Your task to perform on an android device: install app "Booking.com: Hotels and more" Image 0: 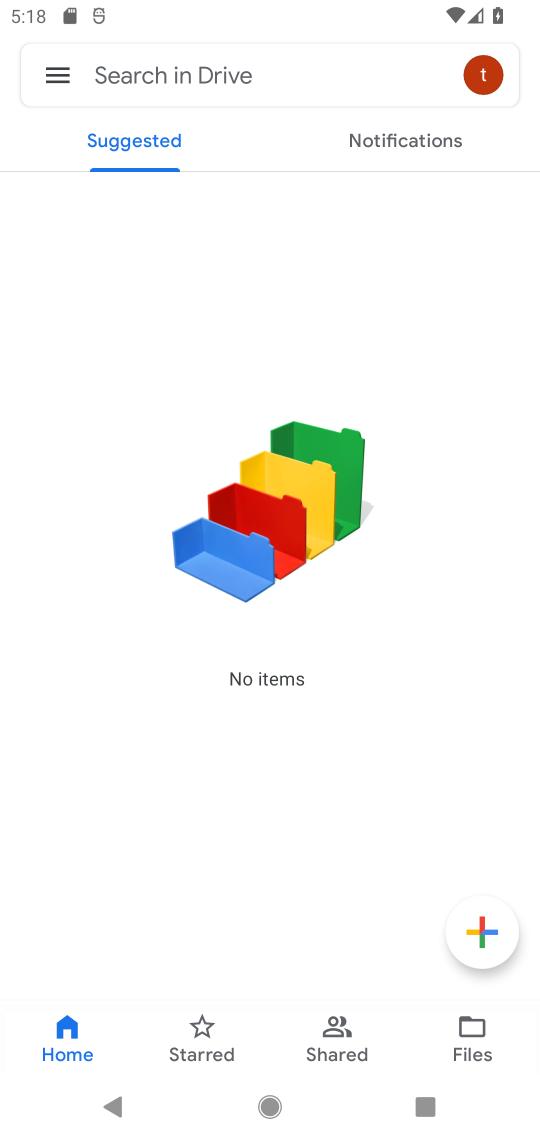
Step 0: press home button
Your task to perform on an android device: install app "Booking.com: Hotels and more" Image 1: 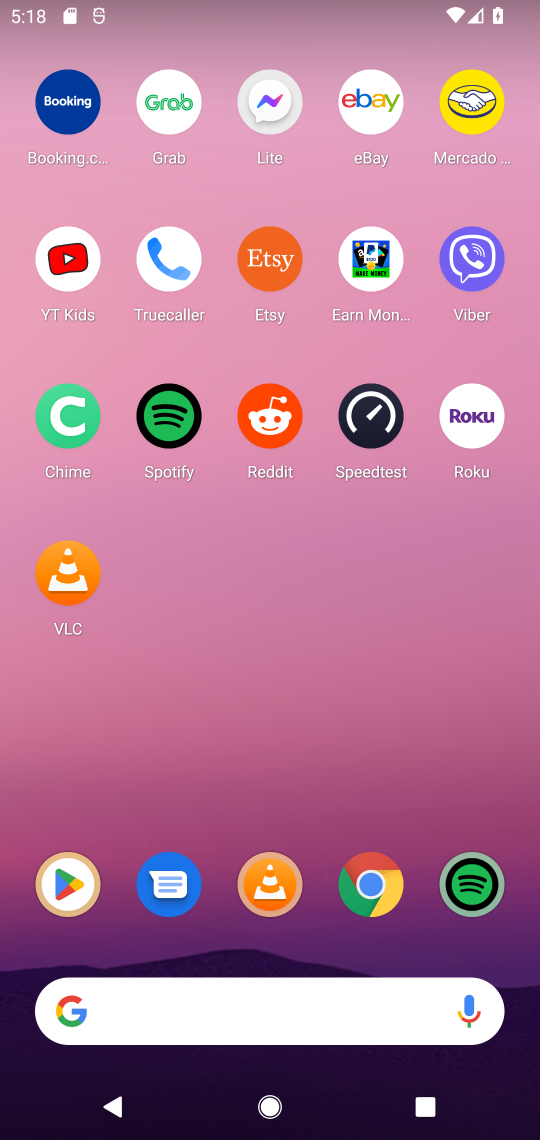
Step 1: drag from (339, 773) to (344, 113)
Your task to perform on an android device: install app "Booking.com: Hotels and more" Image 2: 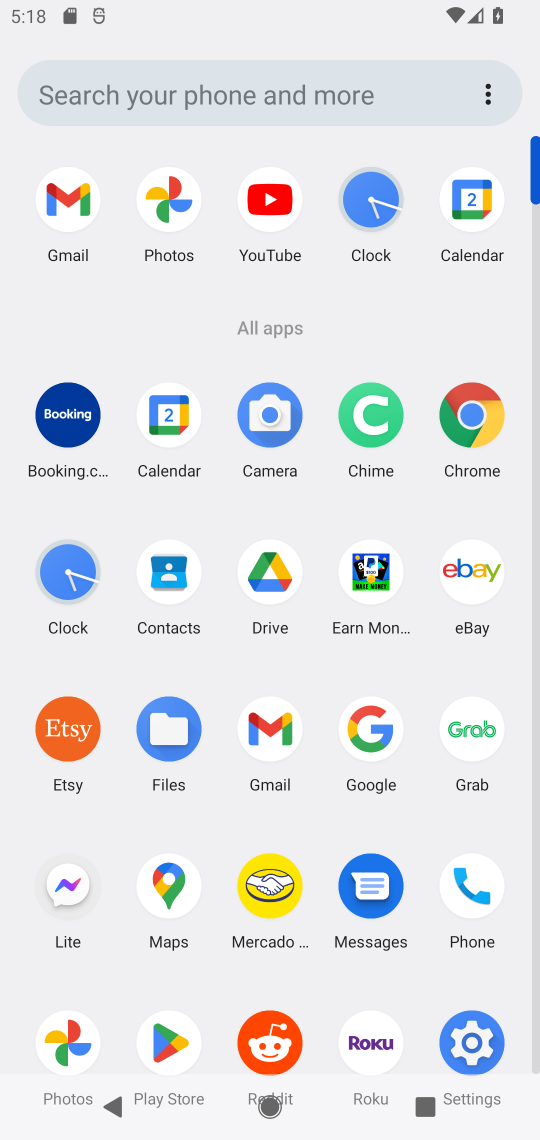
Step 2: click (158, 1045)
Your task to perform on an android device: install app "Booking.com: Hotels and more" Image 3: 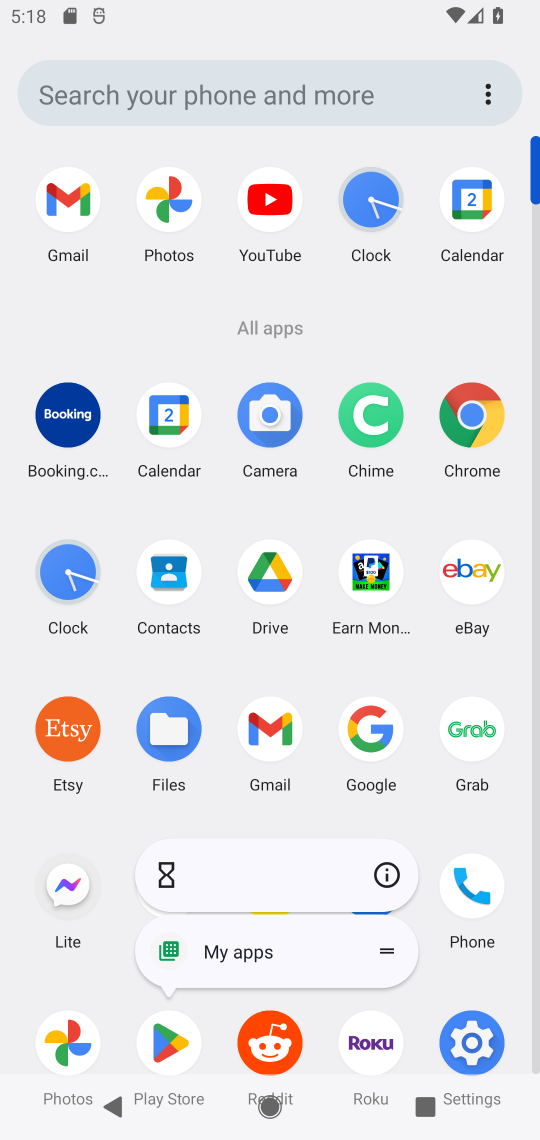
Step 3: click (151, 1033)
Your task to perform on an android device: install app "Booking.com: Hotels and more" Image 4: 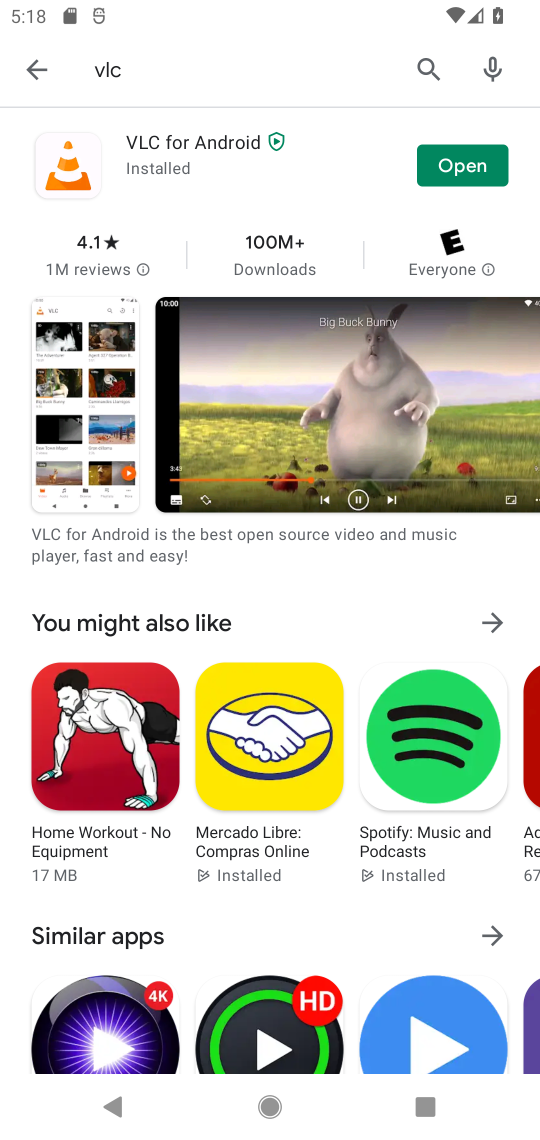
Step 4: click (43, 62)
Your task to perform on an android device: install app "Booking.com: Hotels and more" Image 5: 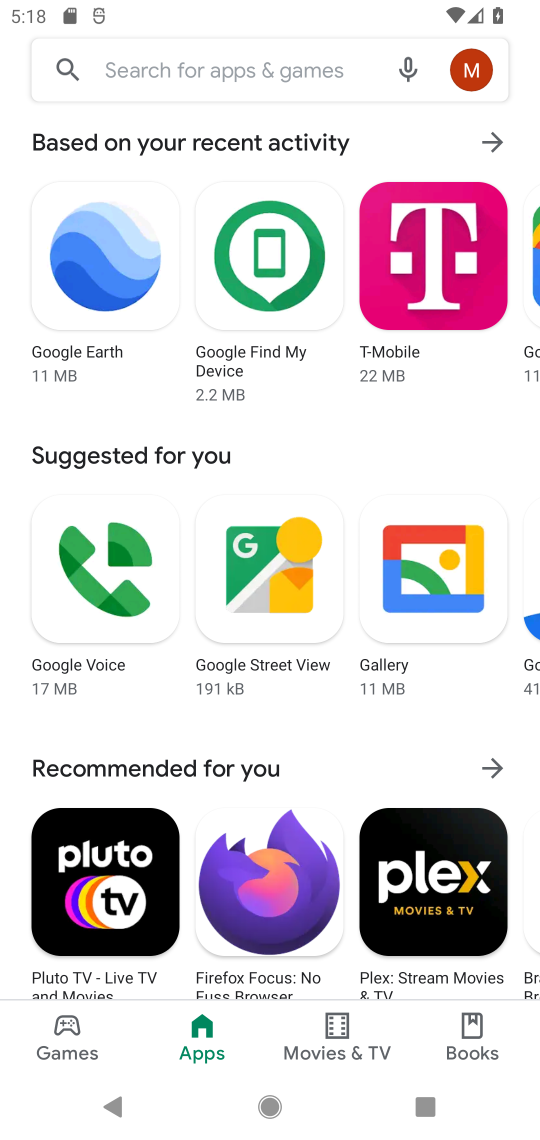
Step 5: click (175, 81)
Your task to perform on an android device: install app "Booking.com: Hotels and more" Image 6: 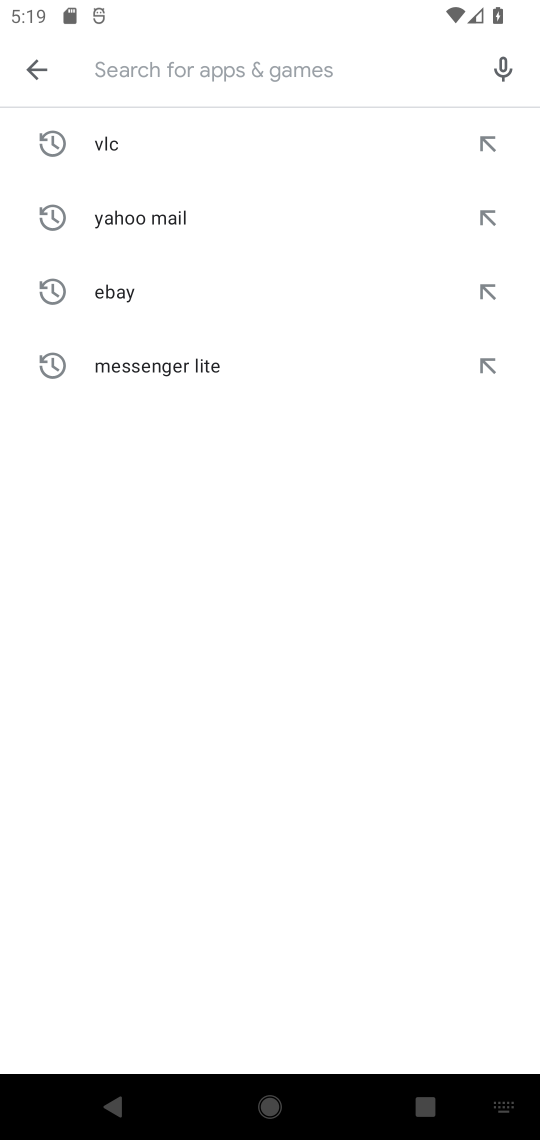
Step 6: type "Booking.com: Hotels and more"
Your task to perform on an android device: install app "Booking.com: Hotels and more" Image 7: 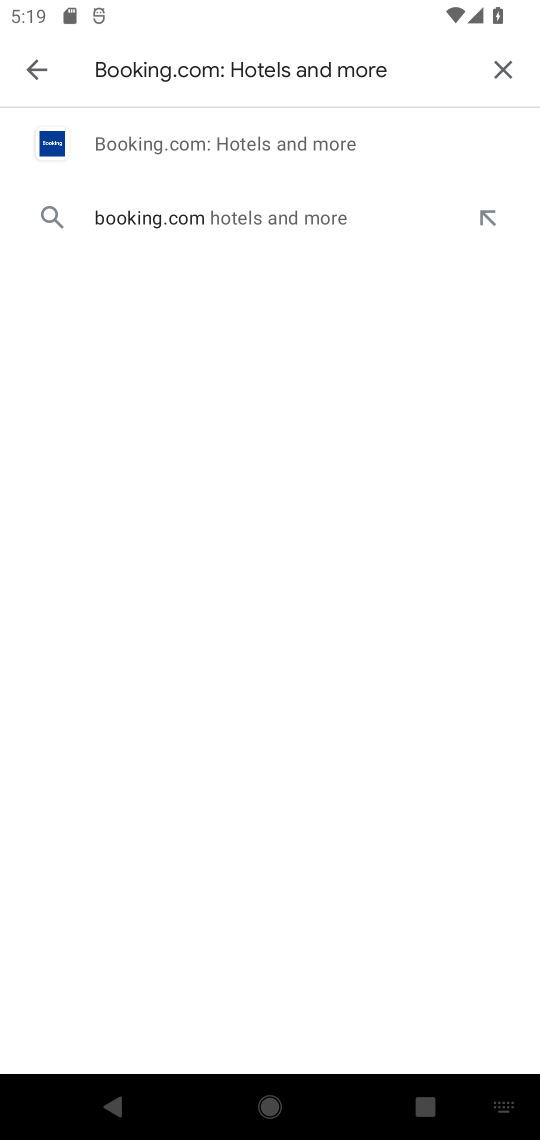
Step 7: click (227, 143)
Your task to perform on an android device: install app "Booking.com: Hotels and more" Image 8: 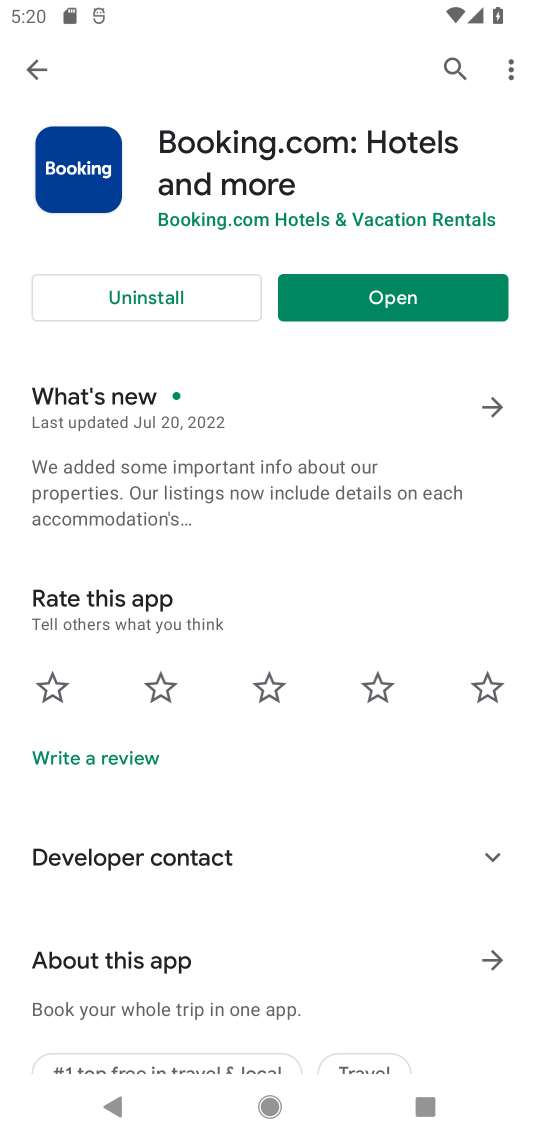
Step 8: task complete